Your task to perform on an android device: Open Google Maps Image 0: 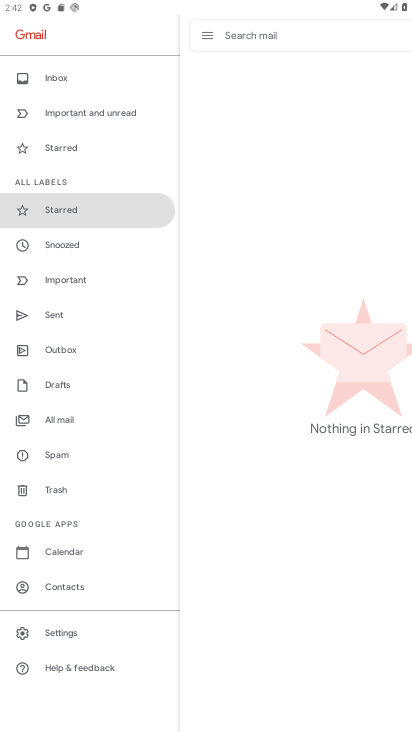
Step 0: press home button
Your task to perform on an android device: Open Google Maps Image 1: 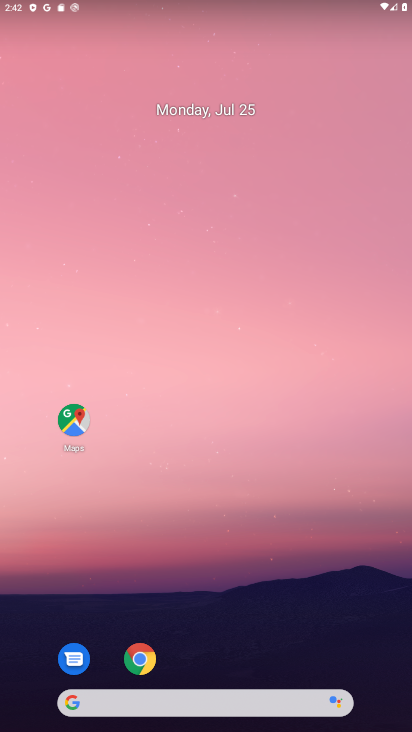
Step 1: drag from (200, 669) to (151, 99)
Your task to perform on an android device: Open Google Maps Image 2: 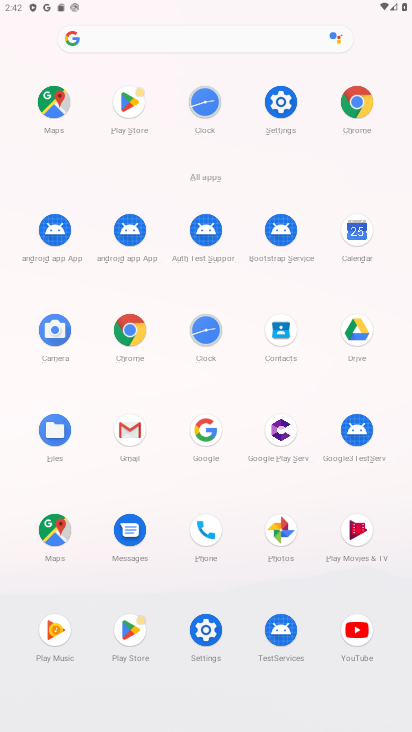
Step 2: click (63, 531)
Your task to perform on an android device: Open Google Maps Image 3: 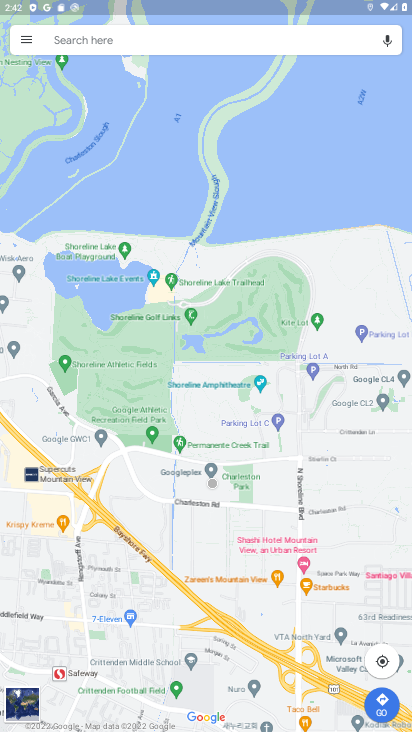
Step 3: task complete